Your task to perform on an android device: Show me recent news Image 0: 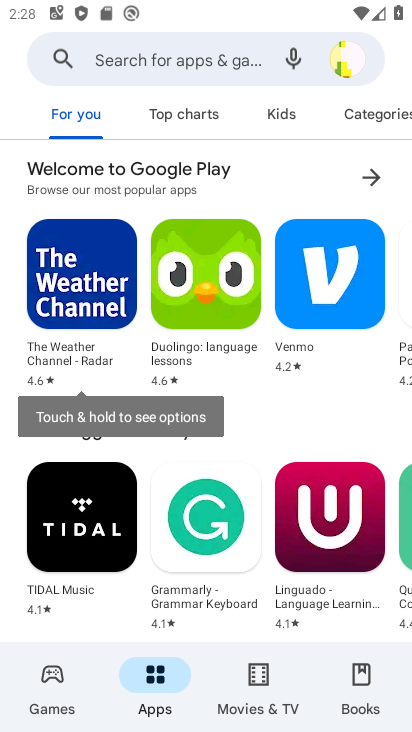
Step 0: press home button
Your task to perform on an android device: Show me recent news Image 1: 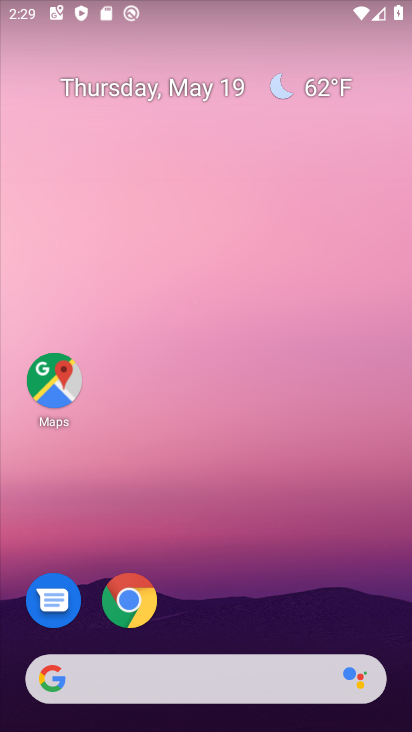
Step 1: click (197, 696)
Your task to perform on an android device: Show me recent news Image 2: 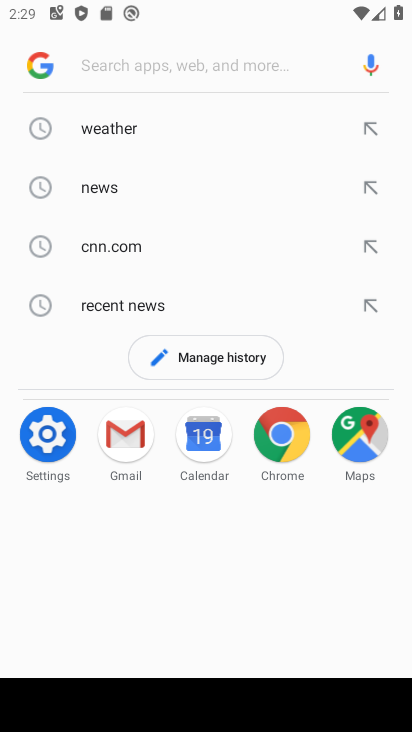
Step 2: click (176, 193)
Your task to perform on an android device: Show me recent news Image 3: 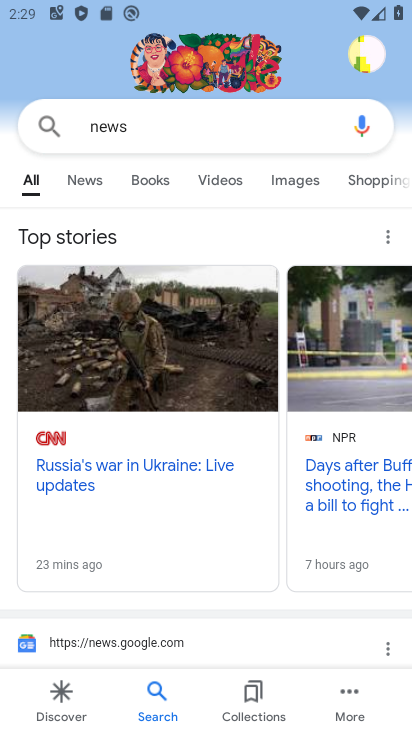
Step 3: task complete